Your task to perform on an android device: delete a single message in the gmail app Image 0: 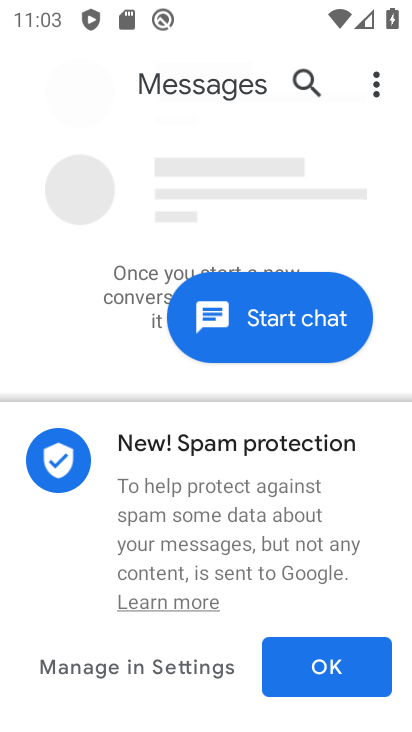
Step 0: press home button
Your task to perform on an android device: delete a single message in the gmail app Image 1: 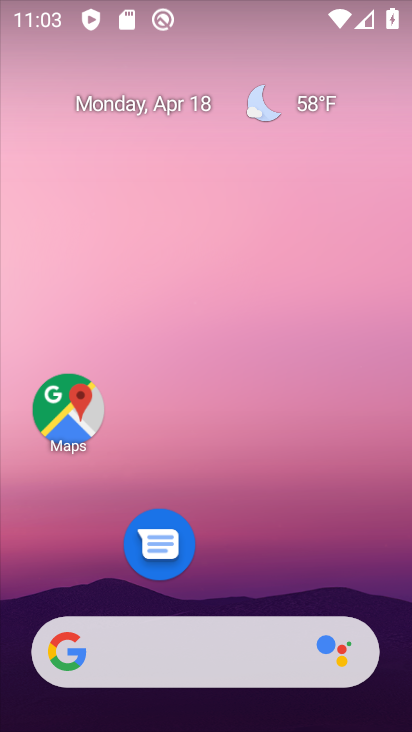
Step 1: drag from (262, 578) to (237, 295)
Your task to perform on an android device: delete a single message in the gmail app Image 2: 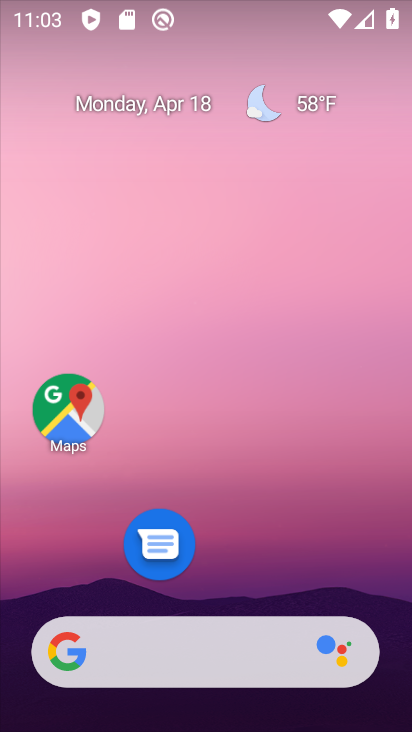
Step 2: drag from (252, 528) to (263, 31)
Your task to perform on an android device: delete a single message in the gmail app Image 3: 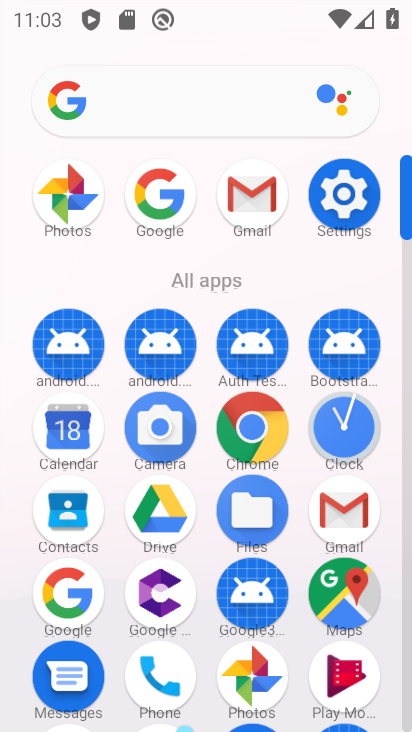
Step 3: click (260, 197)
Your task to perform on an android device: delete a single message in the gmail app Image 4: 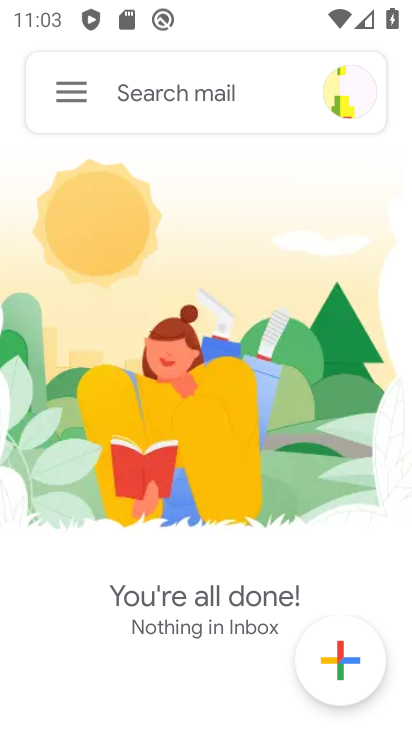
Step 4: click (70, 104)
Your task to perform on an android device: delete a single message in the gmail app Image 5: 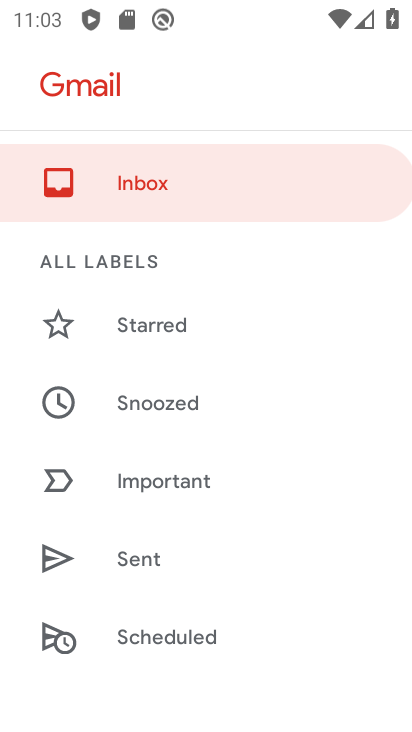
Step 5: drag from (183, 545) to (192, 384)
Your task to perform on an android device: delete a single message in the gmail app Image 6: 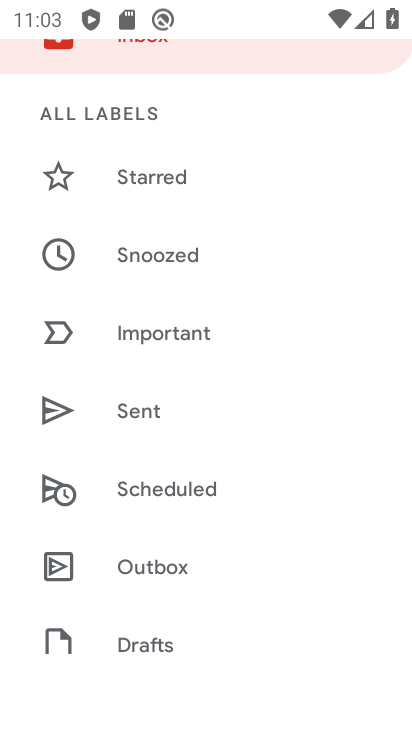
Step 6: drag from (237, 603) to (216, 491)
Your task to perform on an android device: delete a single message in the gmail app Image 7: 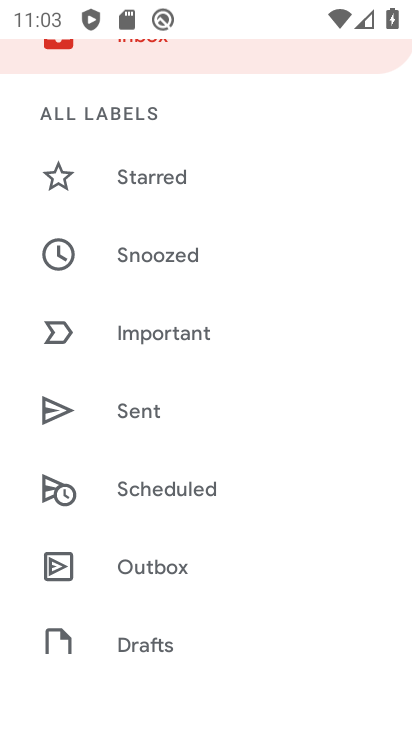
Step 7: drag from (236, 634) to (254, 505)
Your task to perform on an android device: delete a single message in the gmail app Image 8: 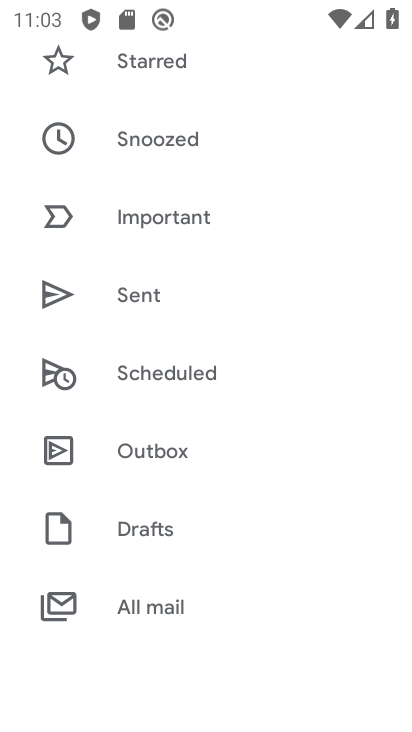
Step 8: drag from (279, 621) to (266, 523)
Your task to perform on an android device: delete a single message in the gmail app Image 9: 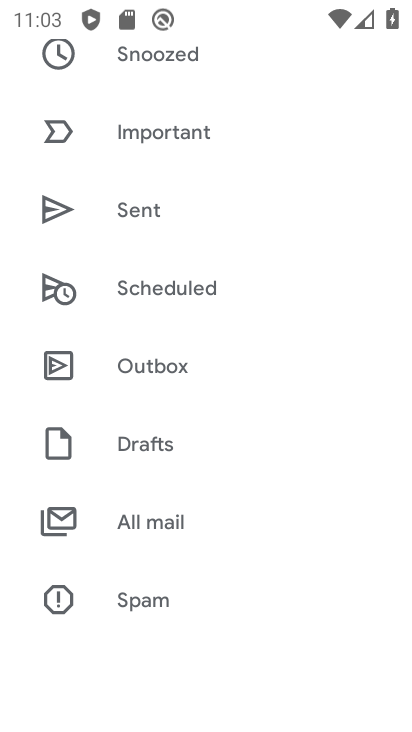
Step 9: drag from (272, 627) to (250, 487)
Your task to perform on an android device: delete a single message in the gmail app Image 10: 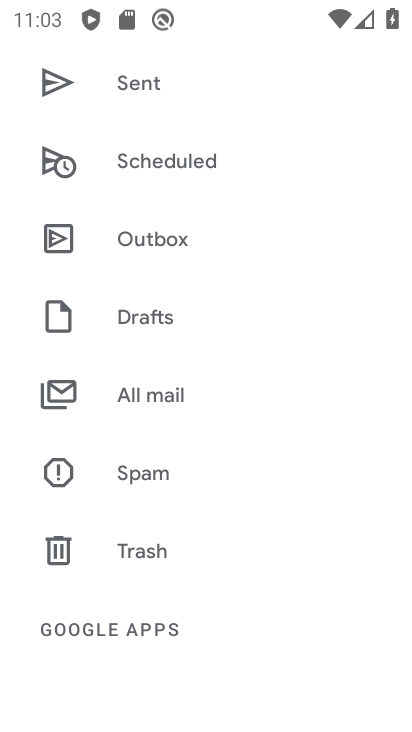
Step 10: drag from (205, 349) to (226, 491)
Your task to perform on an android device: delete a single message in the gmail app Image 11: 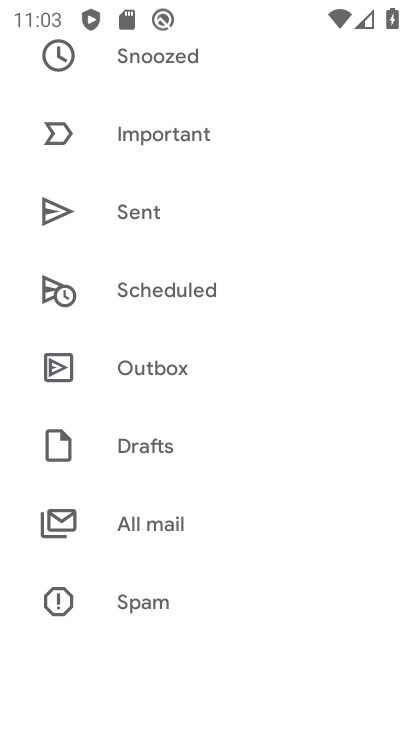
Step 11: drag from (226, 346) to (294, 526)
Your task to perform on an android device: delete a single message in the gmail app Image 12: 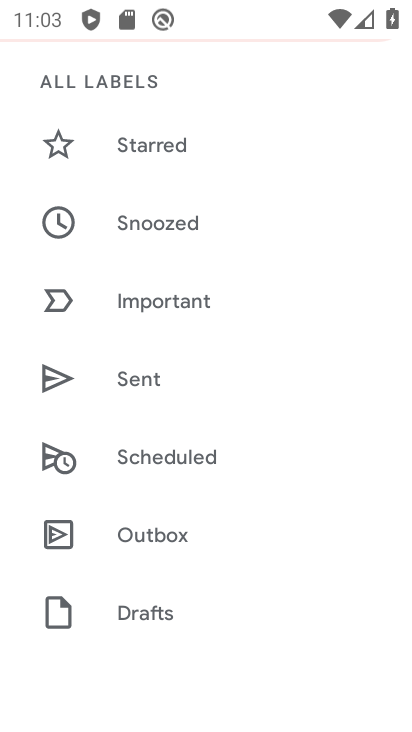
Step 12: drag from (204, 543) to (225, 460)
Your task to perform on an android device: delete a single message in the gmail app Image 13: 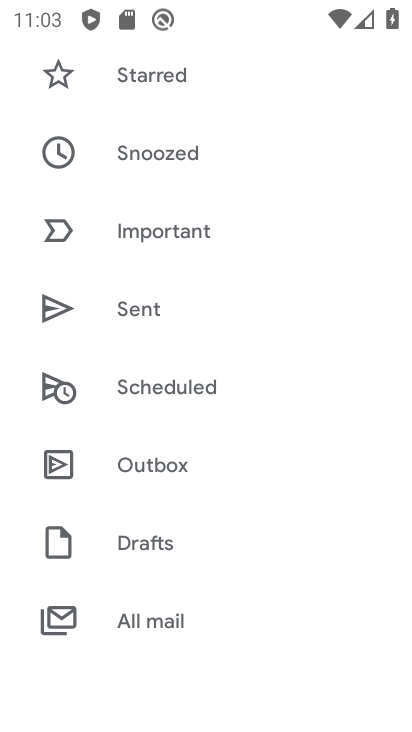
Step 13: drag from (202, 572) to (212, 421)
Your task to perform on an android device: delete a single message in the gmail app Image 14: 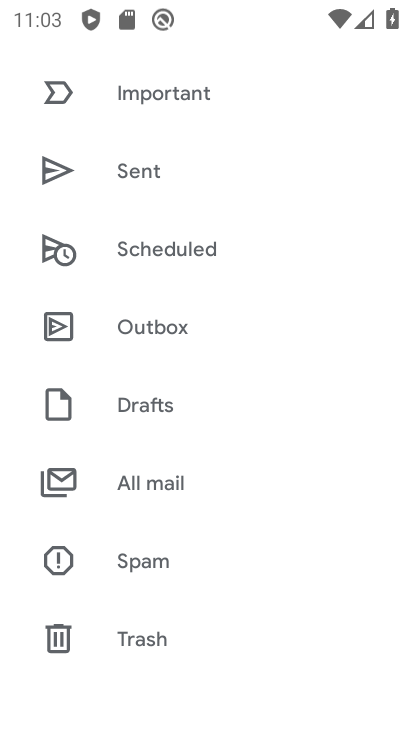
Step 14: drag from (179, 617) to (202, 494)
Your task to perform on an android device: delete a single message in the gmail app Image 15: 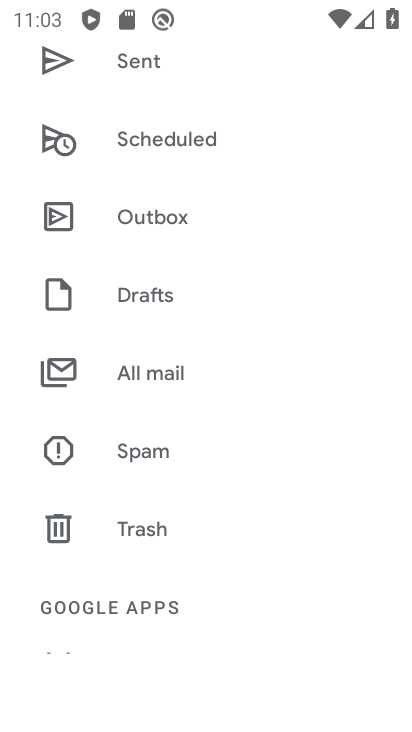
Step 15: click (145, 534)
Your task to perform on an android device: delete a single message in the gmail app Image 16: 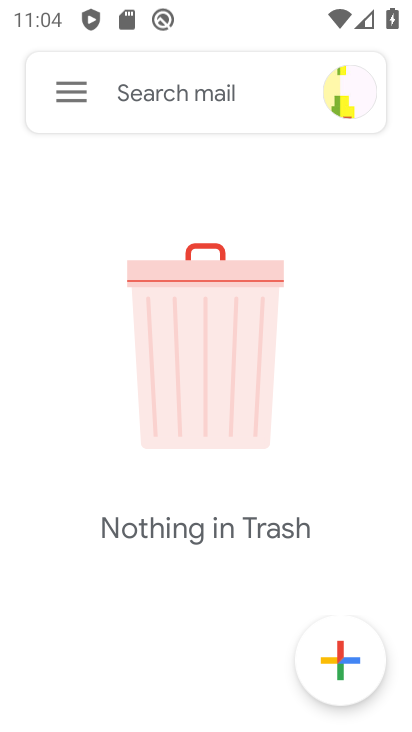
Step 16: click (65, 90)
Your task to perform on an android device: delete a single message in the gmail app Image 17: 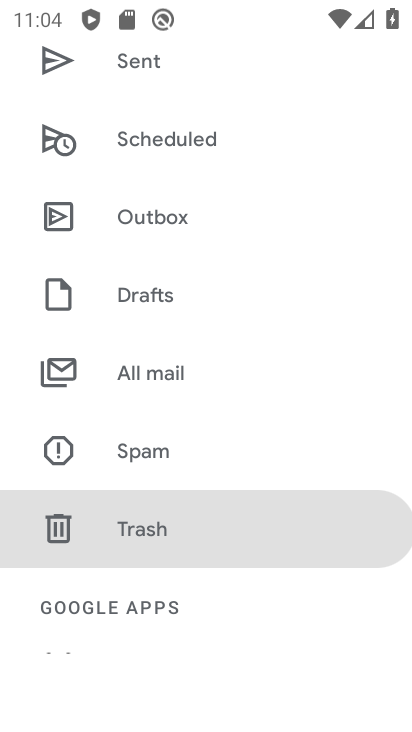
Step 17: click (174, 370)
Your task to perform on an android device: delete a single message in the gmail app Image 18: 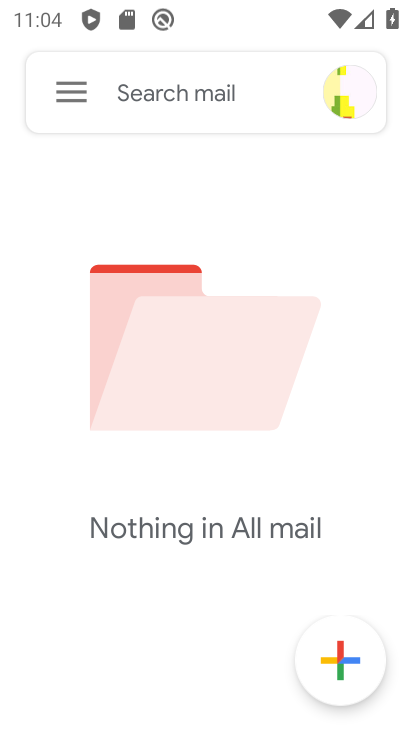
Step 18: task complete